Your task to perform on an android device: change the clock display to digital Image 0: 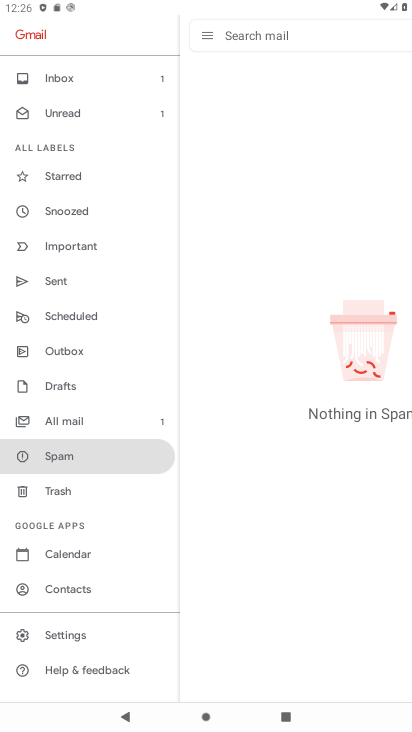
Step 0: press home button
Your task to perform on an android device: change the clock display to digital Image 1: 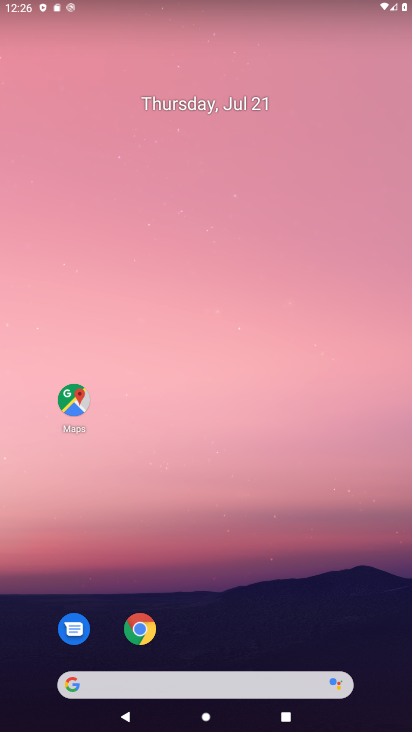
Step 1: drag from (306, 635) to (228, 164)
Your task to perform on an android device: change the clock display to digital Image 2: 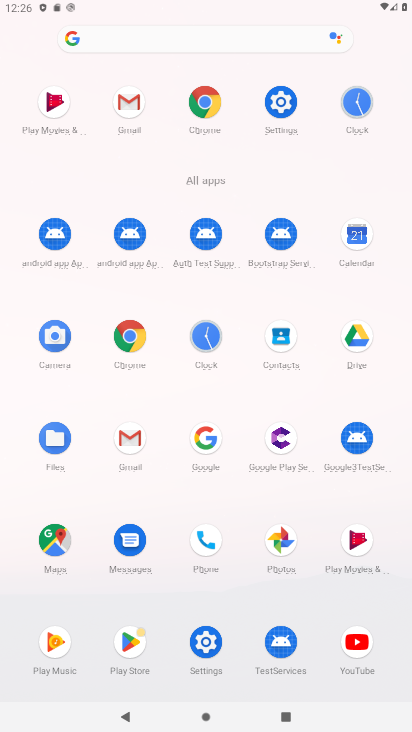
Step 2: click (204, 335)
Your task to perform on an android device: change the clock display to digital Image 3: 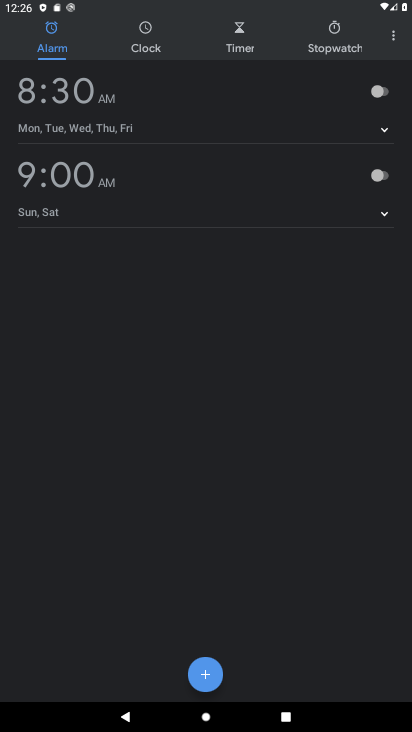
Step 3: click (399, 41)
Your task to perform on an android device: change the clock display to digital Image 4: 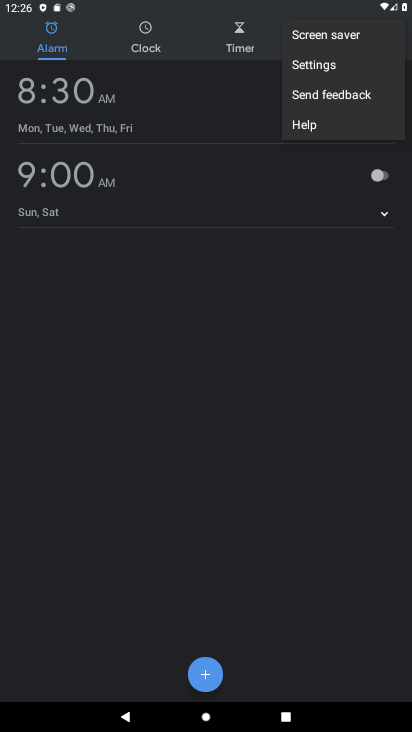
Step 4: click (363, 58)
Your task to perform on an android device: change the clock display to digital Image 5: 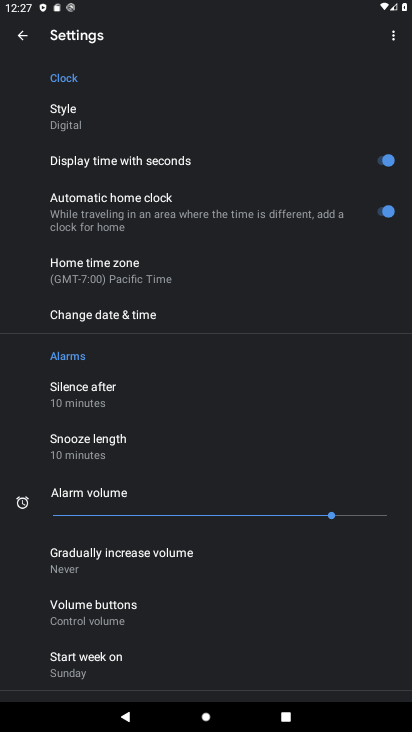
Step 5: click (168, 120)
Your task to perform on an android device: change the clock display to digital Image 6: 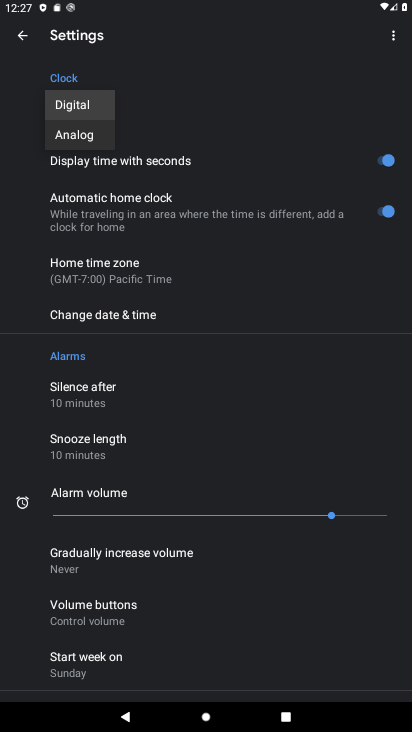
Step 6: task complete